Your task to perform on an android device: toggle notifications settings in the gmail app Image 0: 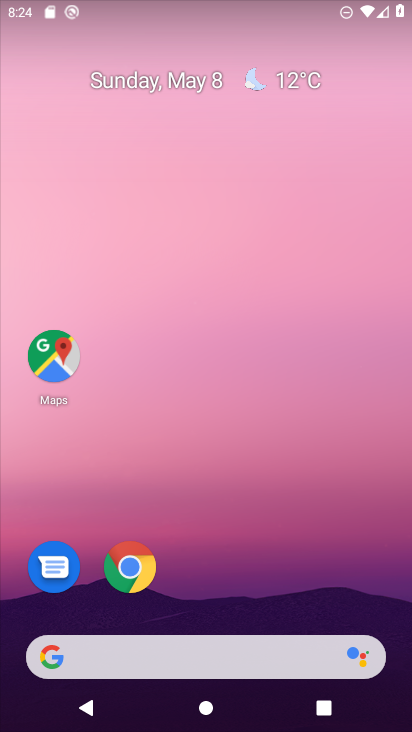
Step 0: click (259, 2)
Your task to perform on an android device: toggle notifications settings in the gmail app Image 1: 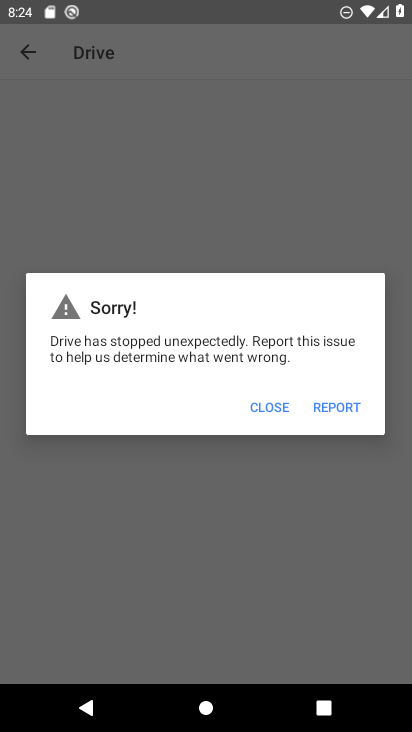
Step 1: press home button
Your task to perform on an android device: toggle notifications settings in the gmail app Image 2: 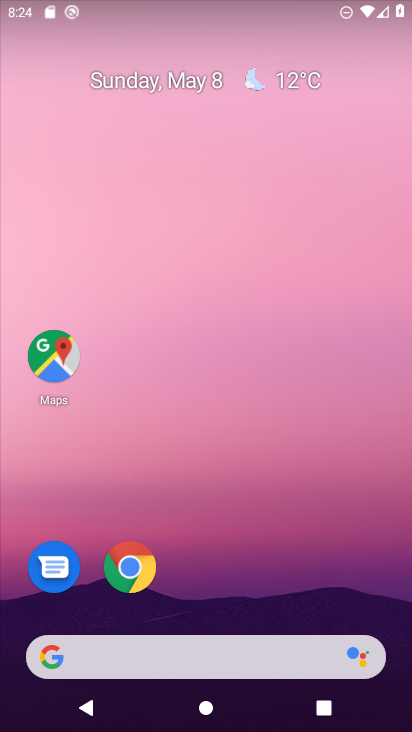
Step 2: drag from (273, 528) to (332, 0)
Your task to perform on an android device: toggle notifications settings in the gmail app Image 3: 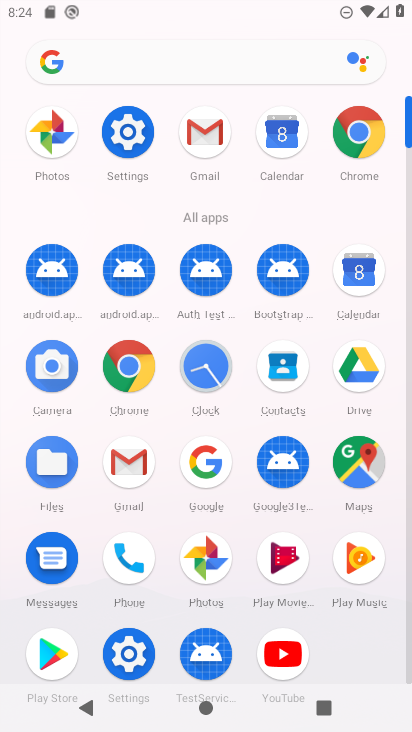
Step 3: click (370, 148)
Your task to perform on an android device: toggle notifications settings in the gmail app Image 4: 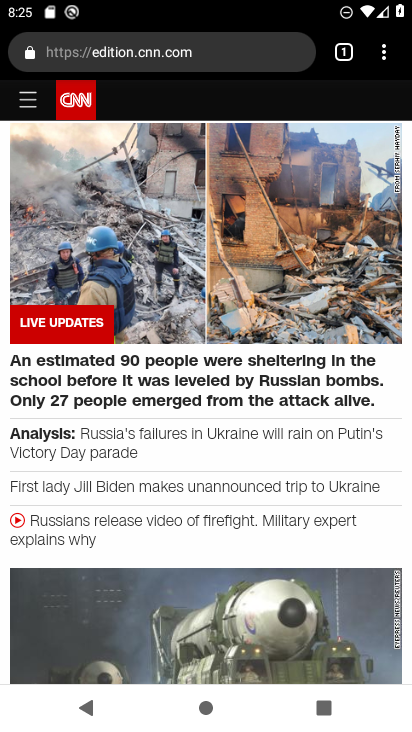
Step 4: press home button
Your task to perform on an android device: toggle notifications settings in the gmail app Image 5: 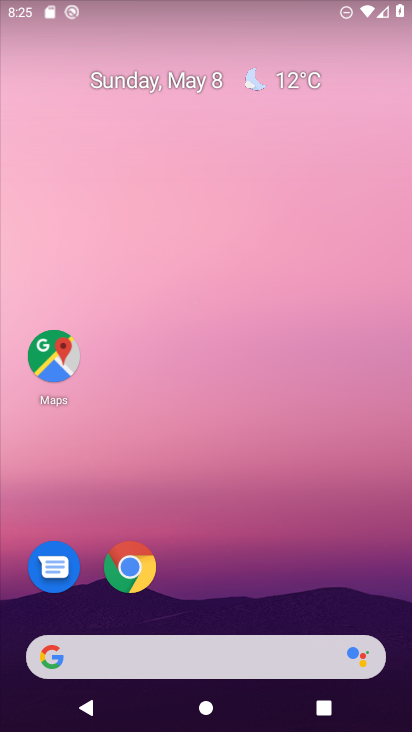
Step 5: drag from (269, 624) to (354, 69)
Your task to perform on an android device: toggle notifications settings in the gmail app Image 6: 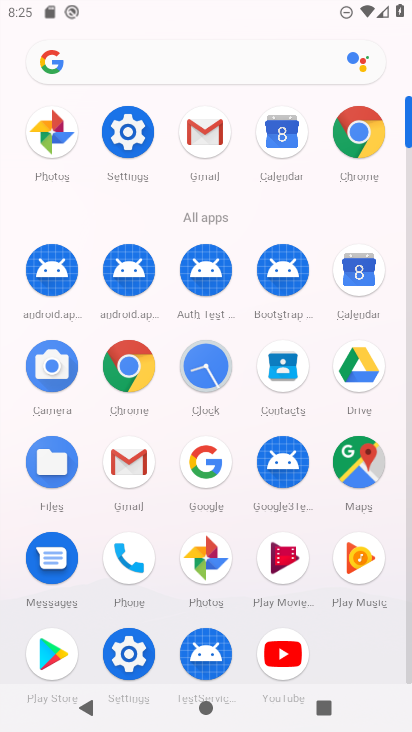
Step 6: click (200, 135)
Your task to perform on an android device: toggle notifications settings in the gmail app Image 7: 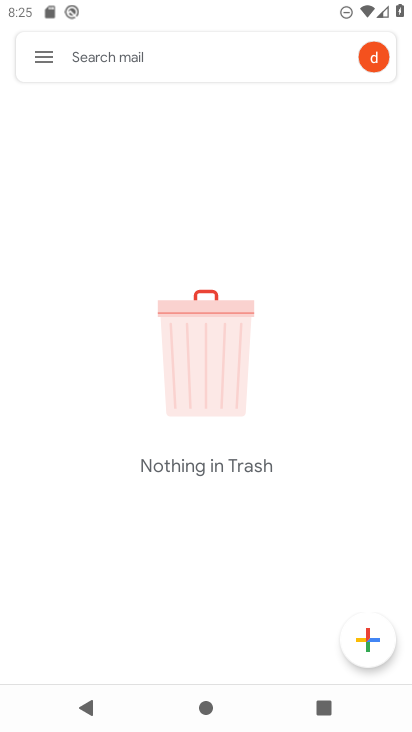
Step 7: click (38, 52)
Your task to perform on an android device: toggle notifications settings in the gmail app Image 8: 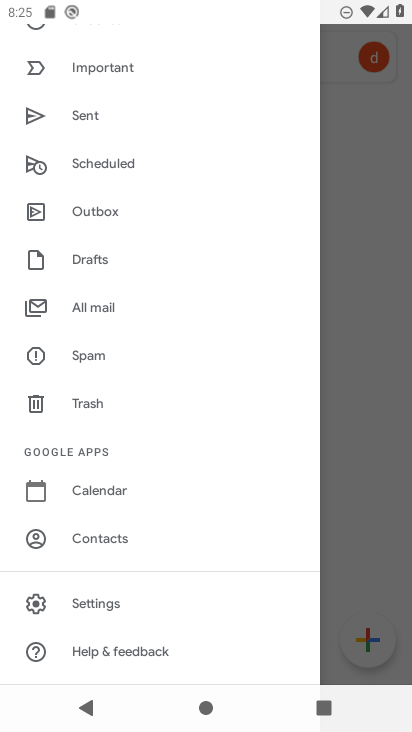
Step 8: drag from (125, 599) to (204, 233)
Your task to perform on an android device: toggle notifications settings in the gmail app Image 9: 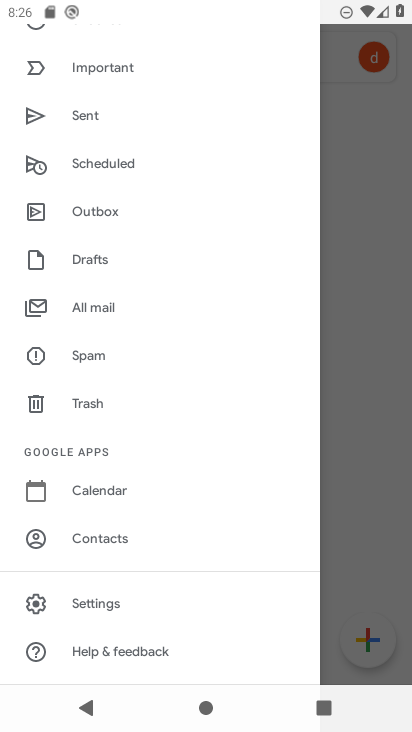
Step 9: drag from (124, 580) to (183, 371)
Your task to perform on an android device: toggle notifications settings in the gmail app Image 10: 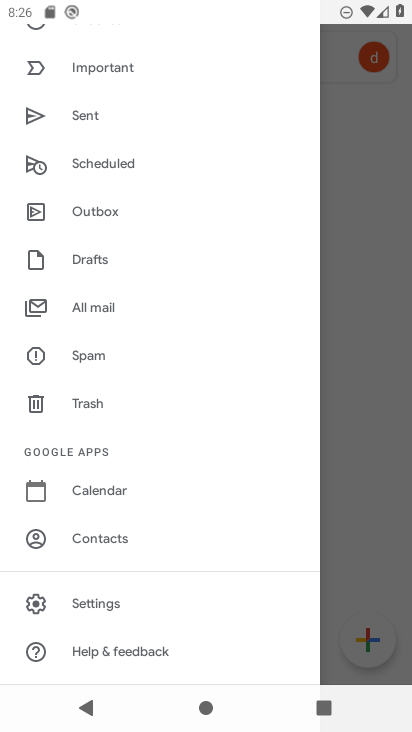
Step 10: click (93, 601)
Your task to perform on an android device: toggle notifications settings in the gmail app Image 11: 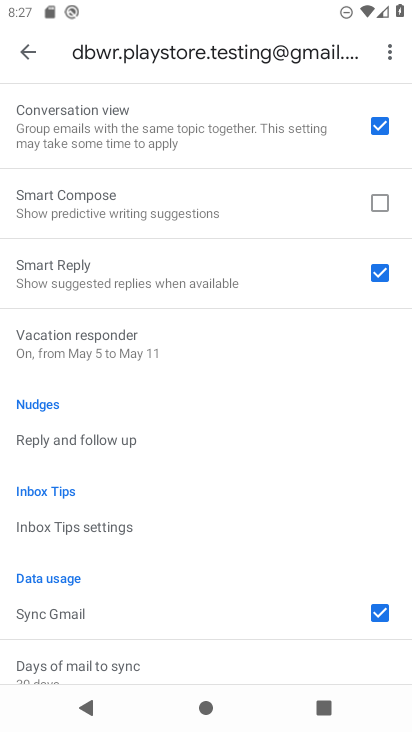
Step 11: drag from (145, 615) to (247, 216)
Your task to perform on an android device: toggle notifications settings in the gmail app Image 12: 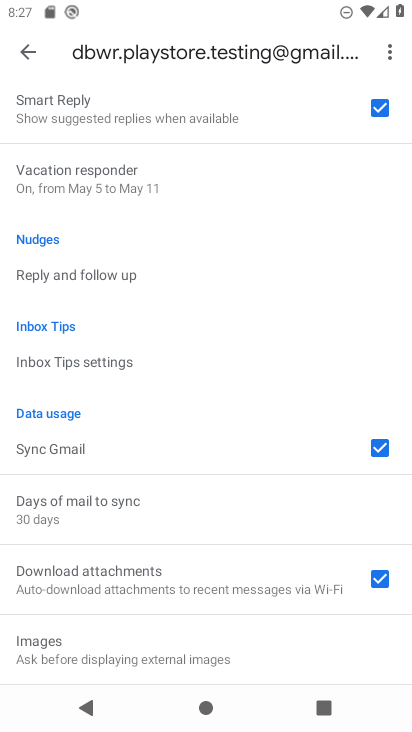
Step 12: drag from (247, 218) to (195, 627)
Your task to perform on an android device: toggle notifications settings in the gmail app Image 13: 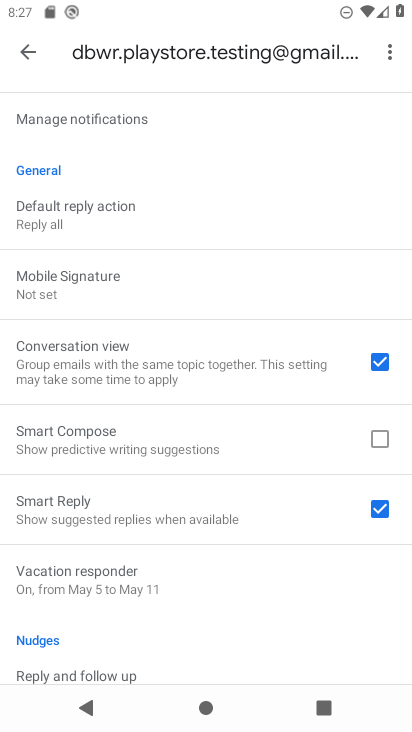
Step 13: drag from (136, 227) to (98, 498)
Your task to perform on an android device: toggle notifications settings in the gmail app Image 14: 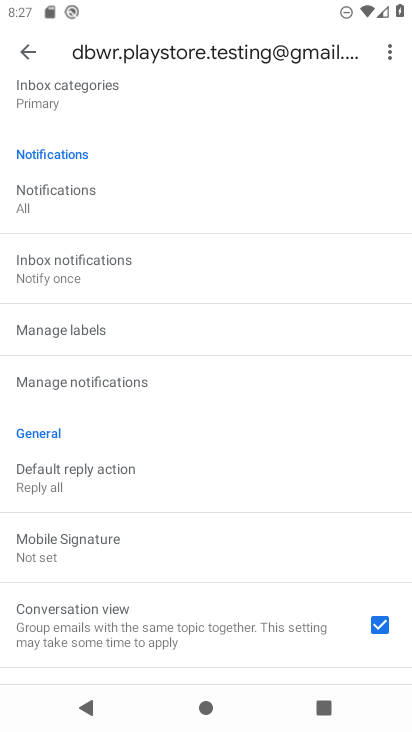
Step 14: click (94, 193)
Your task to perform on an android device: toggle notifications settings in the gmail app Image 15: 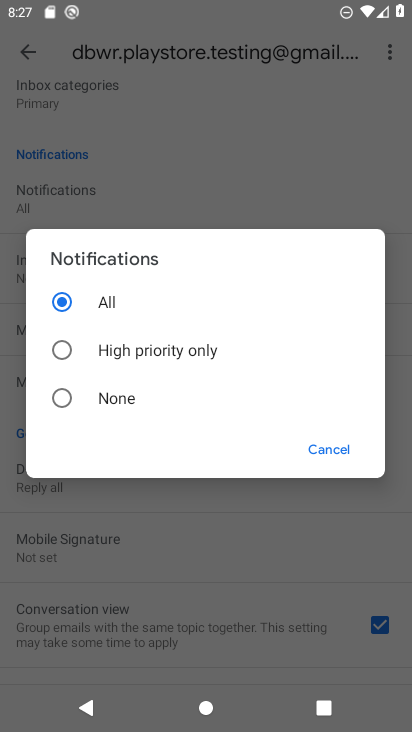
Step 15: click (63, 358)
Your task to perform on an android device: toggle notifications settings in the gmail app Image 16: 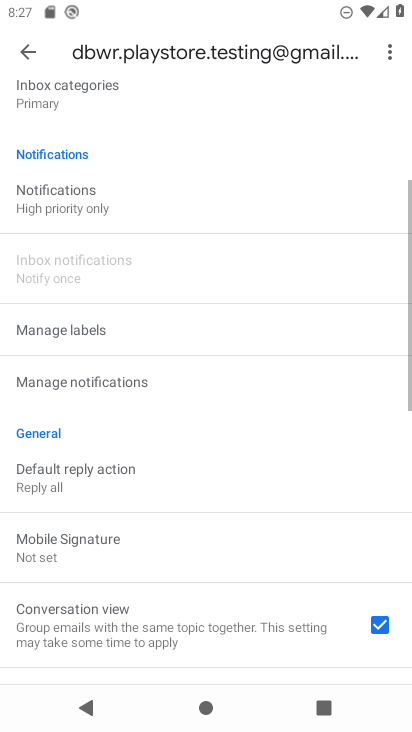
Step 16: task complete